Your task to perform on an android device: turn vacation reply on in the gmail app Image 0: 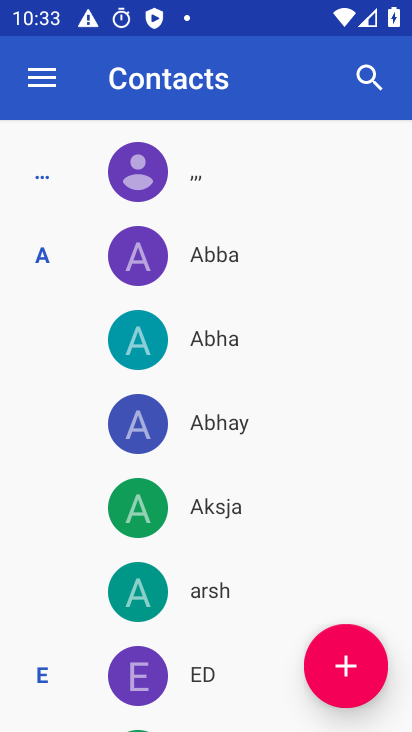
Step 0: press home button
Your task to perform on an android device: turn vacation reply on in the gmail app Image 1: 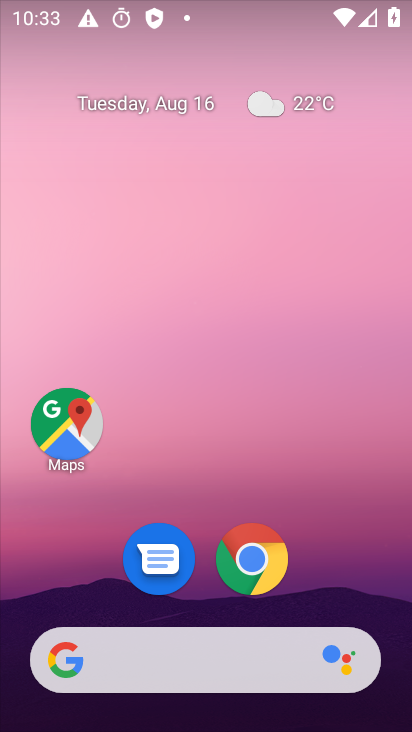
Step 1: drag from (197, 472) to (198, 57)
Your task to perform on an android device: turn vacation reply on in the gmail app Image 2: 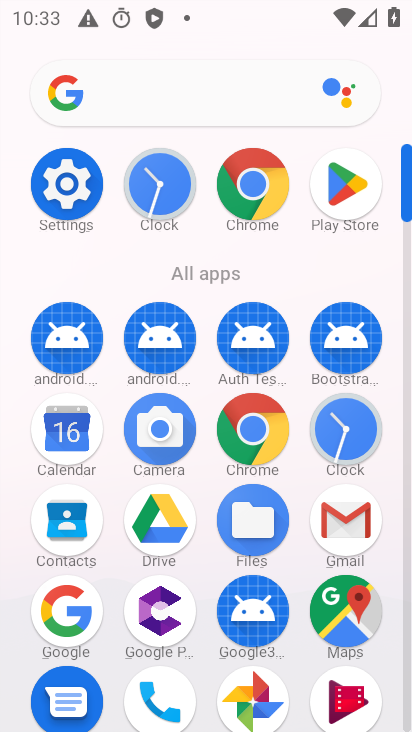
Step 2: click (351, 534)
Your task to perform on an android device: turn vacation reply on in the gmail app Image 3: 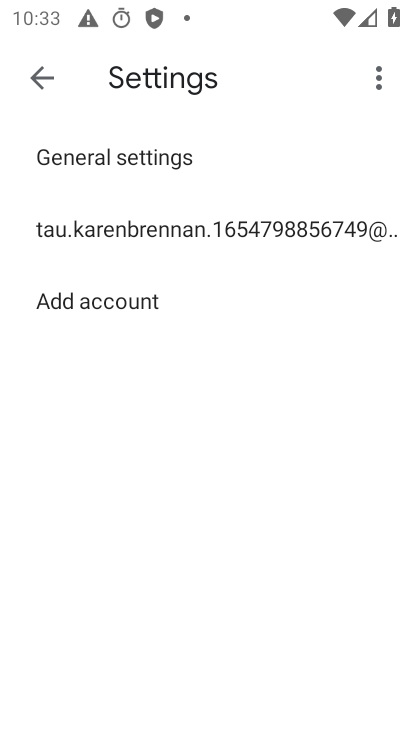
Step 3: click (37, 76)
Your task to perform on an android device: turn vacation reply on in the gmail app Image 4: 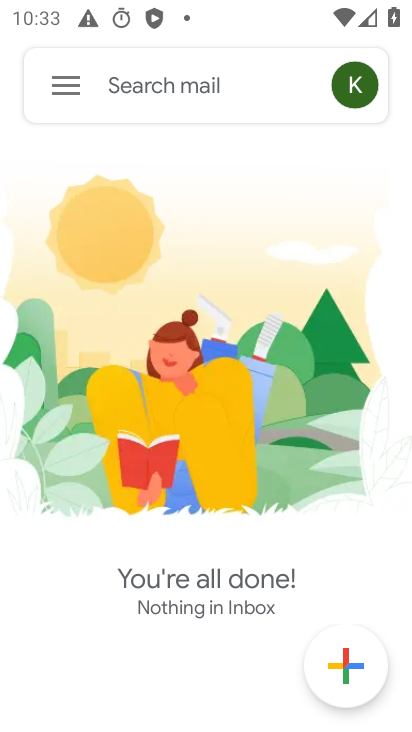
Step 4: click (61, 86)
Your task to perform on an android device: turn vacation reply on in the gmail app Image 5: 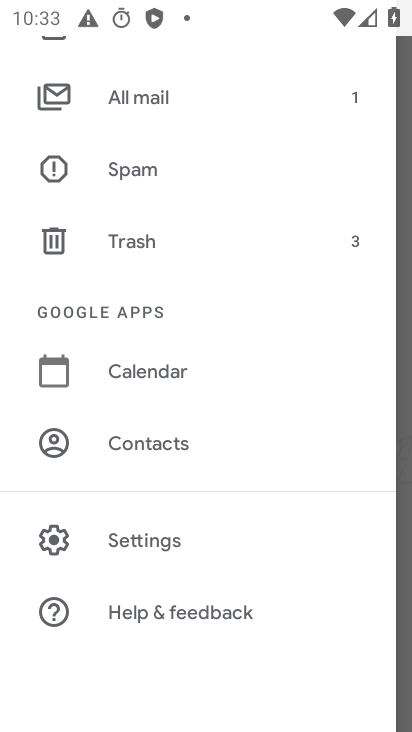
Step 5: click (121, 547)
Your task to perform on an android device: turn vacation reply on in the gmail app Image 6: 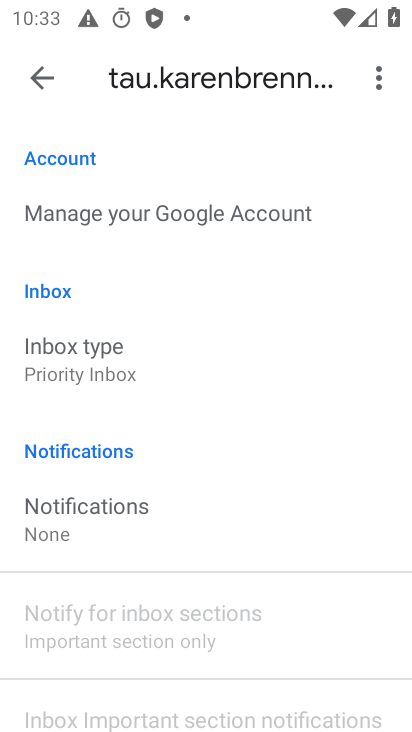
Step 6: drag from (291, 545) to (271, 264)
Your task to perform on an android device: turn vacation reply on in the gmail app Image 7: 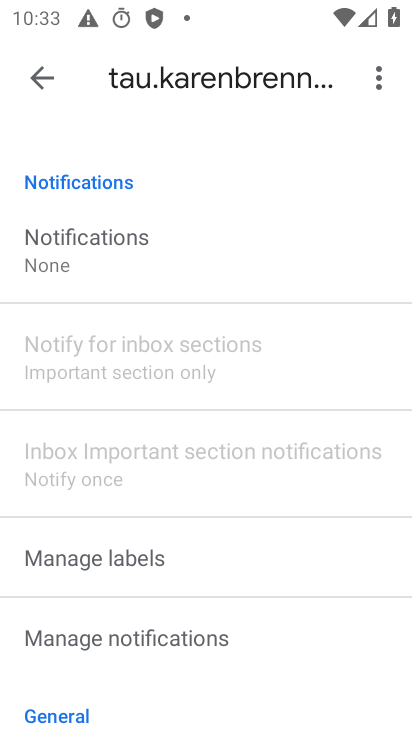
Step 7: drag from (203, 660) to (172, 421)
Your task to perform on an android device: turn vacation reply on in the gmail app Image 8: 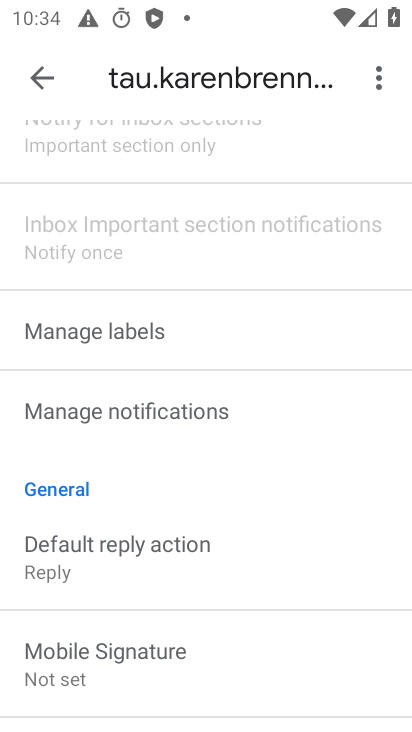
Step 8: drag from (242, 537) to (247, 303)
Your task to perform on an android device: turn vacation reply on in the gmail app Image 9: 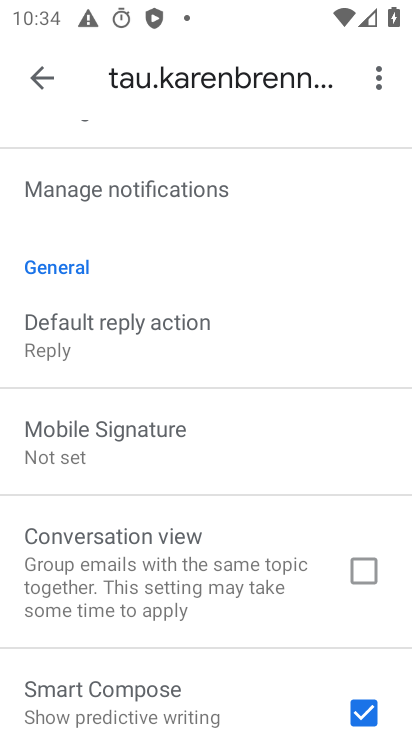
Step 9: drag from (215, 646) to (225, 309)
Your task to perform on an android device: turn vacation reply on in the gmail app Image 10: 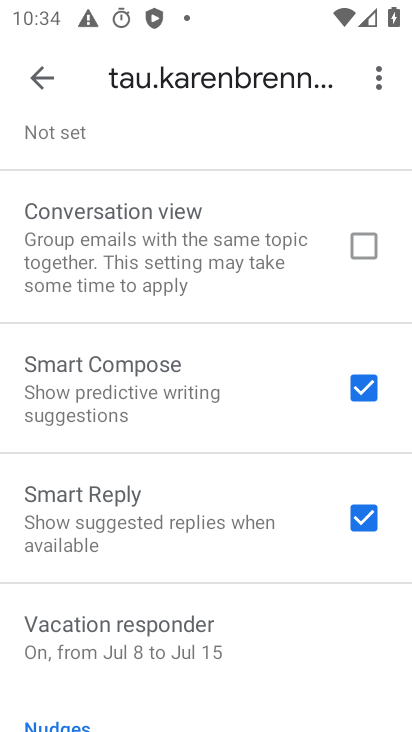
Step 10: click (146, 640)
Your task to perform on an android device: turn vacation reply on in the gmail app Image 11: 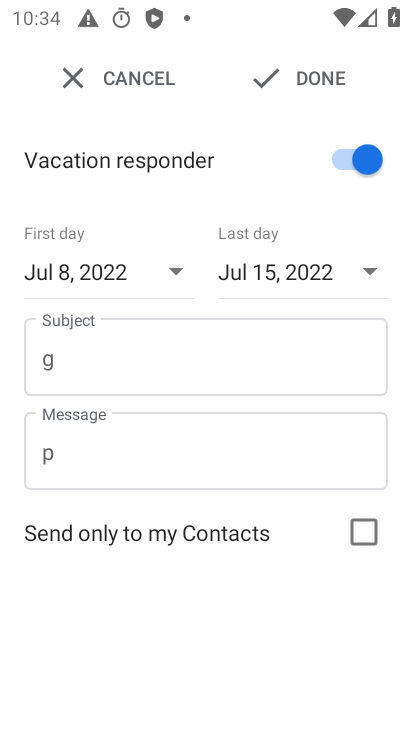
Step 11: click (306, 70)
Your task to perform on an android device: turn vacation reply on in the gmail app Image 12: 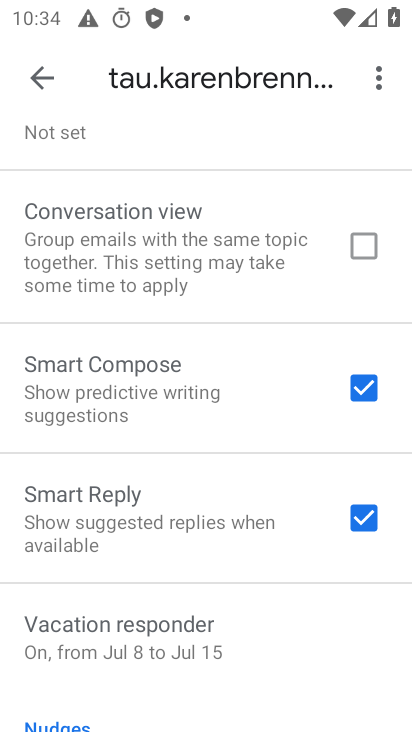
Step 12: task complete